Your task to perform on an android device: Go to display settings Image 0: 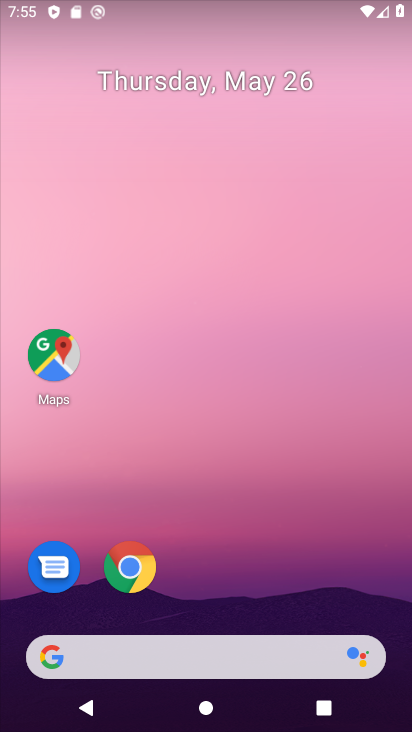
Step 0: drag from (268, 713) to (316, 311)
Your task to perform on an android device: Go to display settings Image 1: 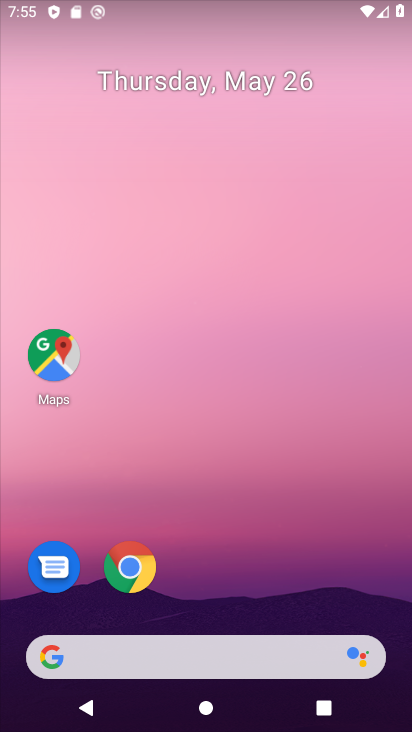
Step 1: drag from (265, 708) to (278, 243)
Your task to perform on an android device: Go to display settings Image 2: 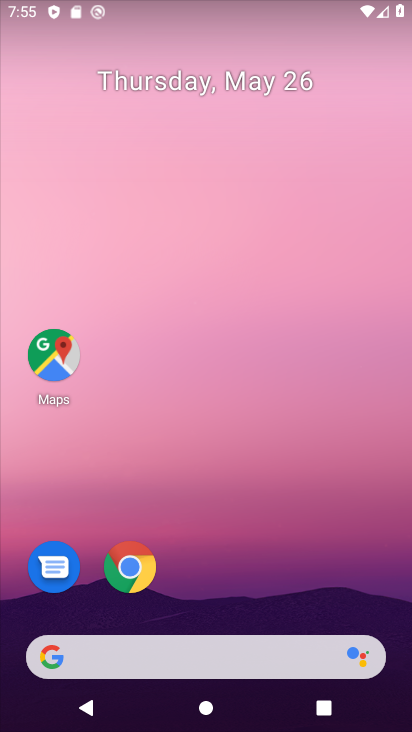
Step 2: drag from (242, 703) to (378, 76)
Your task to perform on an android device: Go to display settings Image 3: 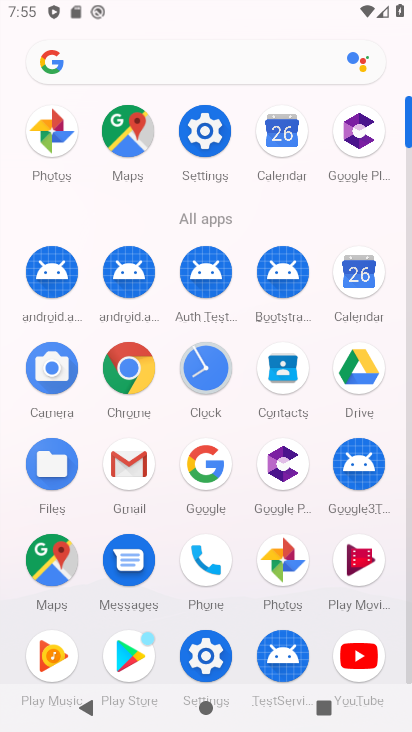
Step 3: click (213, 124)
Your task to perform on an android device: Go to display settings Image 4: 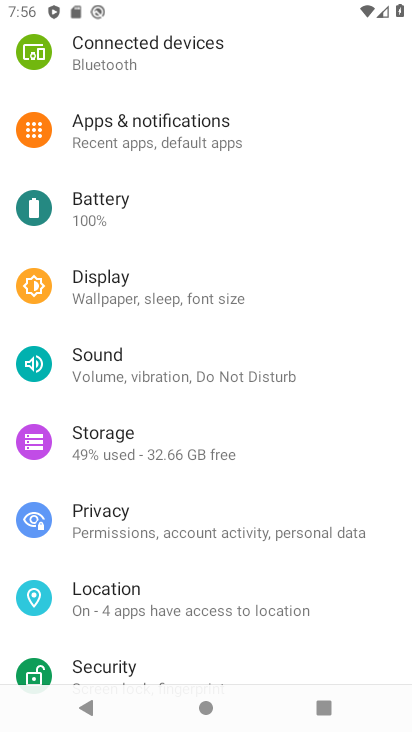
Step 4: click (237, 306)
Your task to perform on an android device: Go to display settings Image 5: 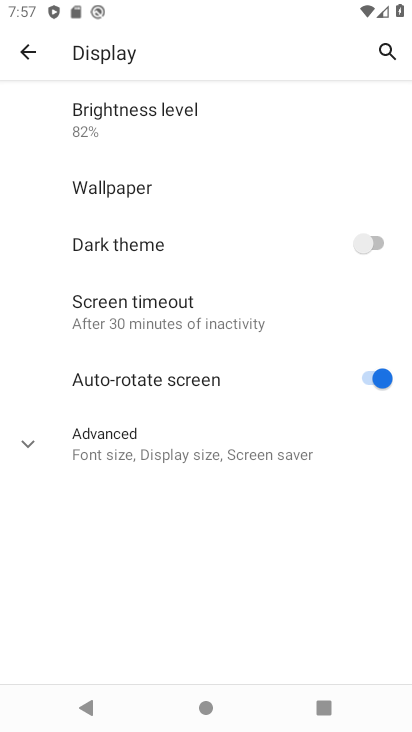
Step 5: task complete